Your task to perform on an android device: Search for sushi restaurants on Maps Image 0: 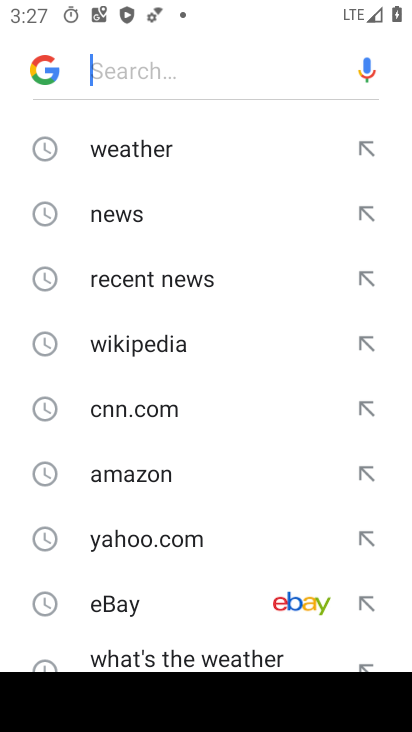
Step 0: press home button
Your task to perform on an android device: Search for sushi restaurants on Maps Image 1: 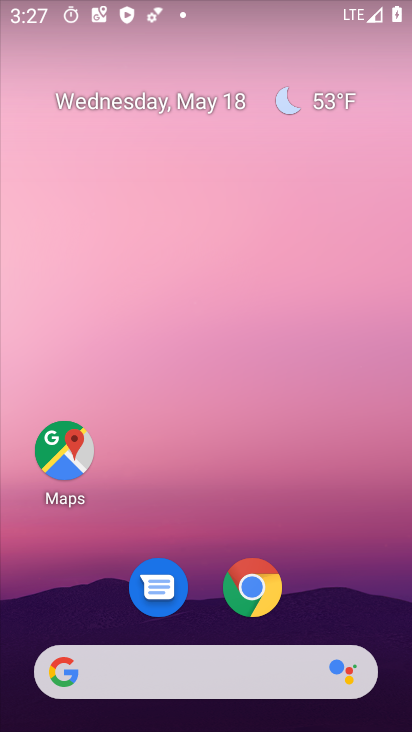
Step 1: drag from (254, 542) to (235, 173)
Your task to perform on an android device: Search for sushi restaurants on Maps Image 2: 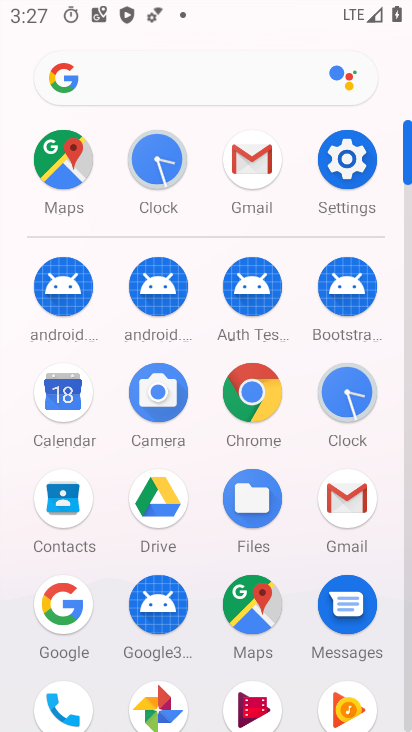
Step 2: click (59, 188)
Your task to perform on an android device: Search for sushi restaurants on Maps Image 3: 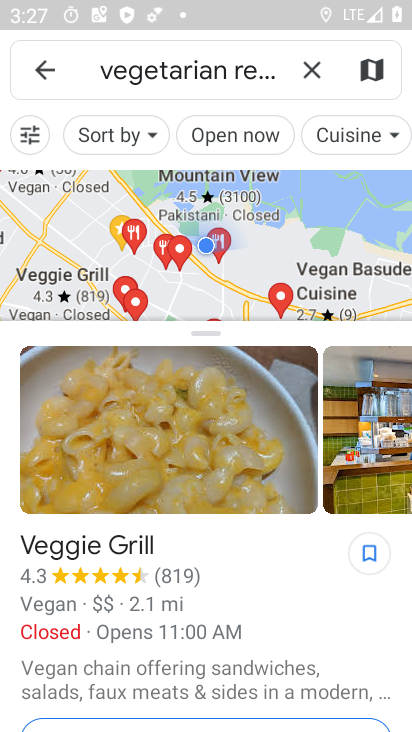
Step 3: click (309, 67)
Your task to perform on an android device: Search for sushi restaurants on Maps Image 4: 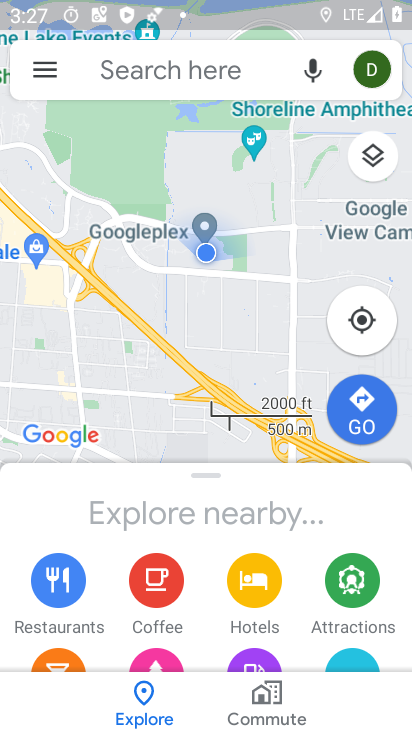
Step 4: click (215, 64)
Your task to perform on an android device: Search for sushi restaurants on Maps Image 5: 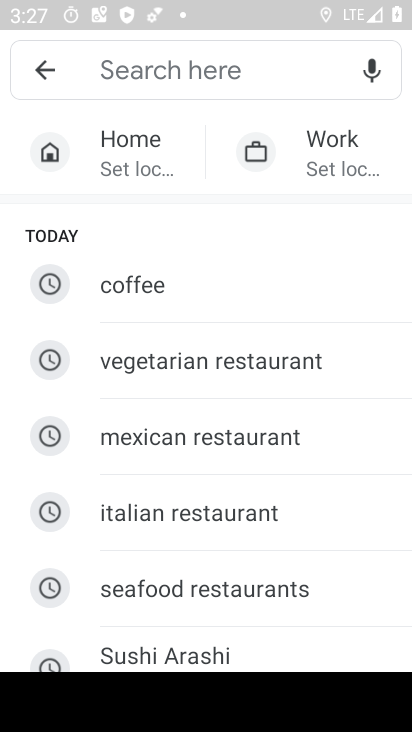
Step 5: drag from (161, 551) to (159, 302)
Your task to perform on an android device: Search for sushi restaurants on Maps Image 6: 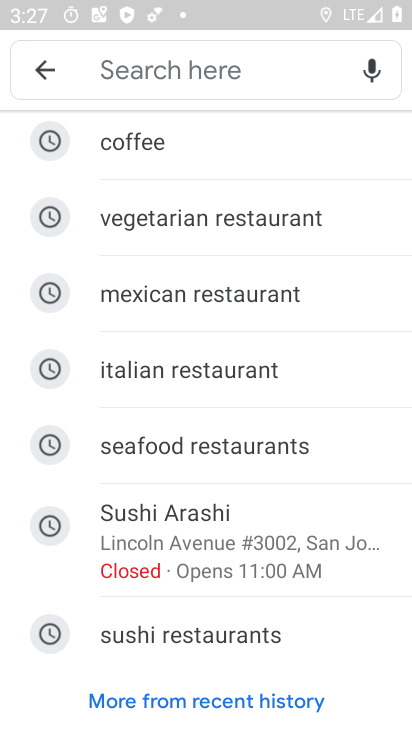
Step 6: click (187, 632)
Your task to perform on an android device: Search for sushi restaurants on Maps Image 7: 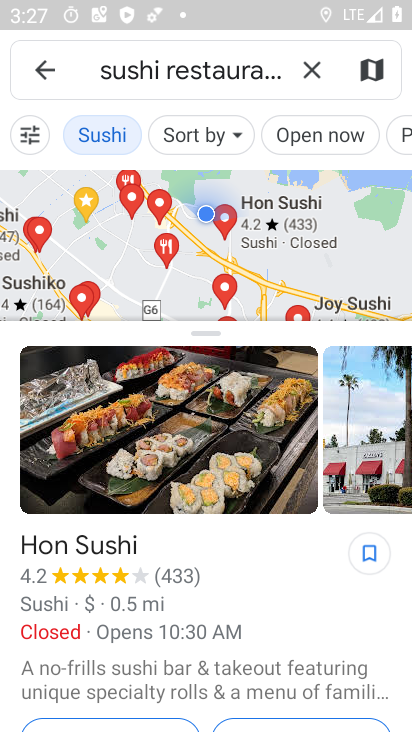
Step 7: task complete